Your task to perform on an android device: See recent photos Image 0: 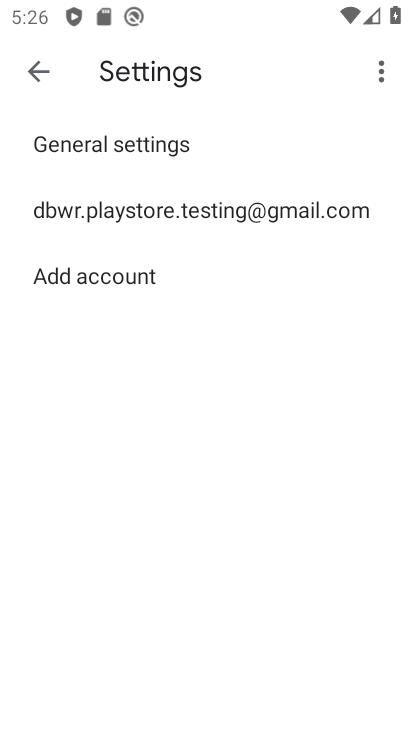
Step 0: press home button
Your task to perform on an android device: See recent photos Image 1: 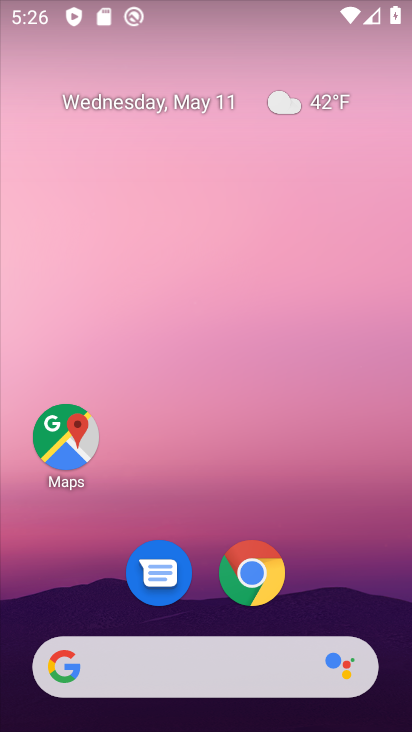
Step 1: drag from (320, 585) to (239, 75)
Your task to perform on an android device: See recent photos Image 2: 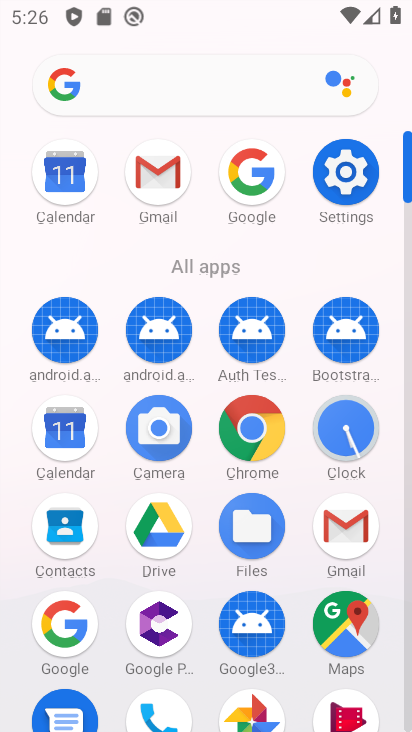
Step 2: drag from (170, 671) to (156, 389)
Your task to perform on an android device: See recent photos Image 3: 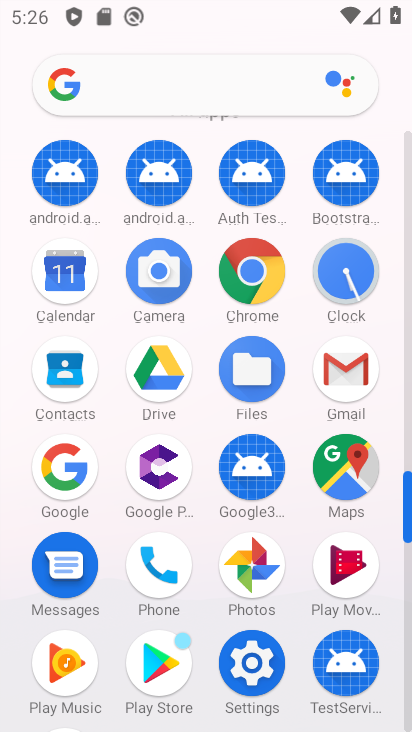
Step 3: click (259, 561)
Your task to perform on an android device: See recent photos Image 4: 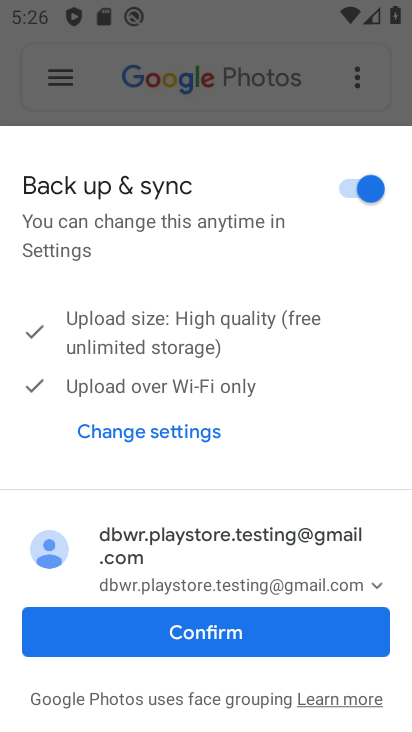
Step 4: click (233, 643)
Your task to perform on an android device: See recent photos Image 5: 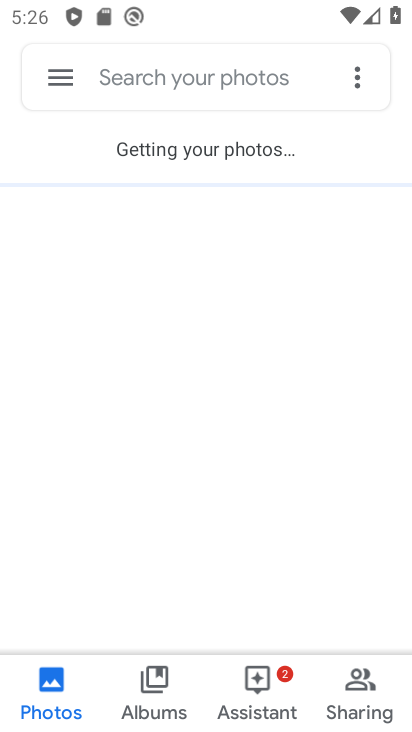
Step 5: click (168, 75)
Your task to perform on an android device: See recent photos Image 6: 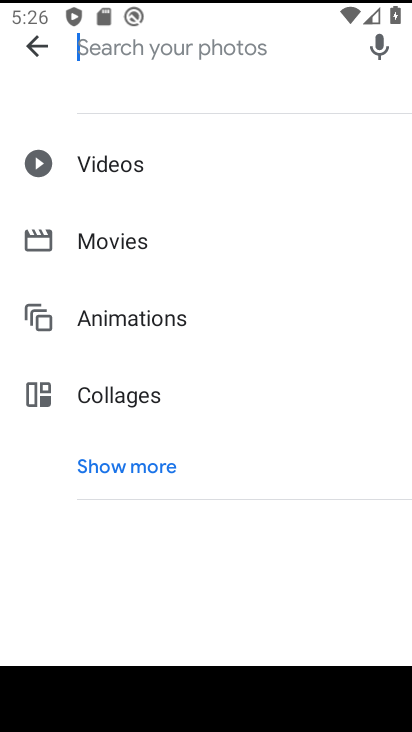
Step 6: task complete